Your task to perform on an android device: check data usage Image 0: 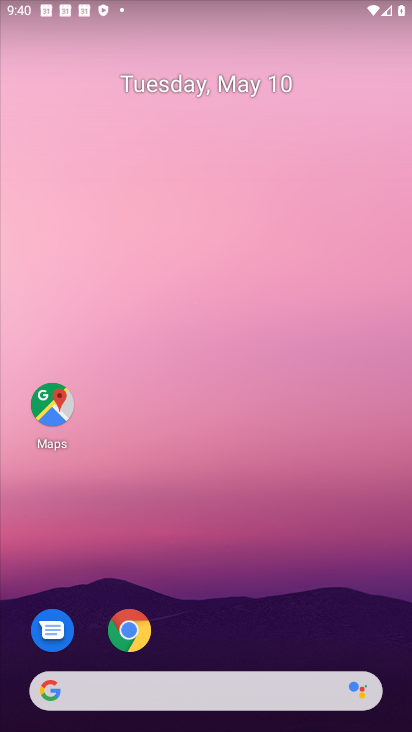
Step 0: drag from (188, 649) to (175, 123)
Your task to perform on an android device: check data usage Image 1: 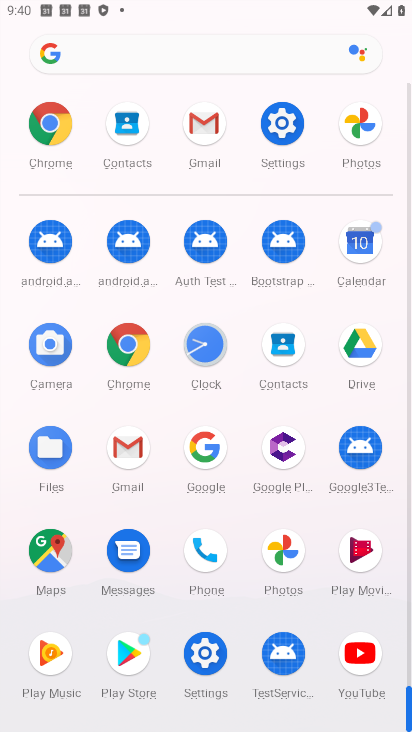
Step 1: click (291, 121)
Your task to perform on an android device: check data usage Image 2: 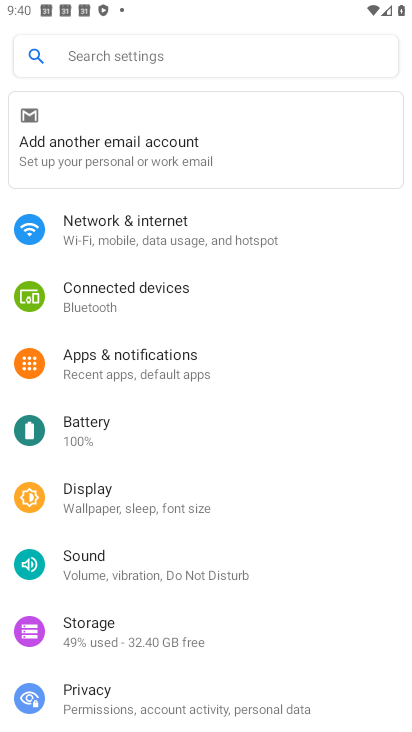
Step 2: click (222, 230)
Your task to perform on an android device: check data usage Image 3: 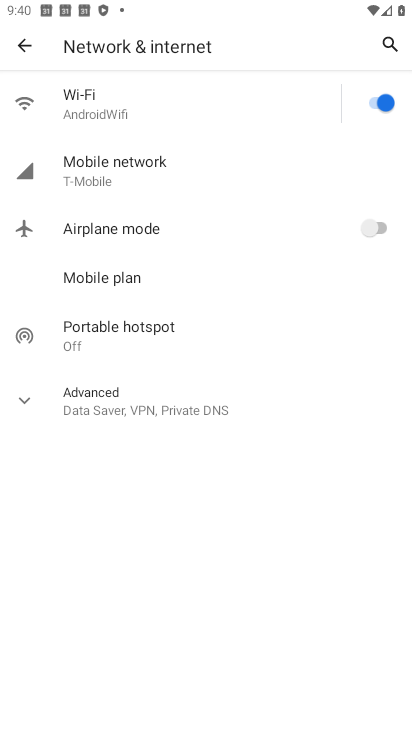
Step 3: click (147, 166)
Your task to perform on an android device: check data usage Image 4: 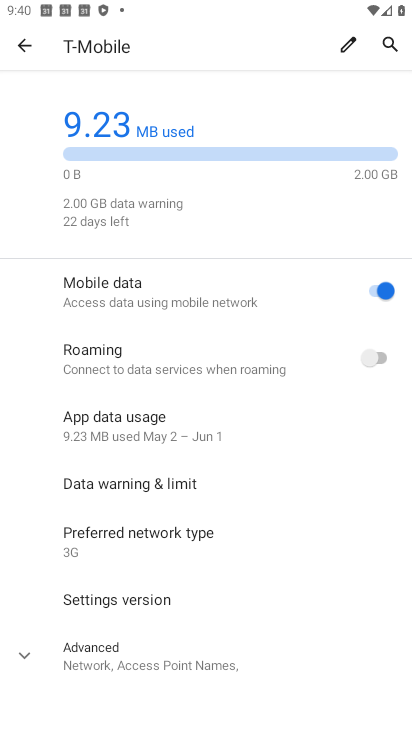
Step 4: task complete